Your task to perform on an android device: toggle airplane mode Image 0: 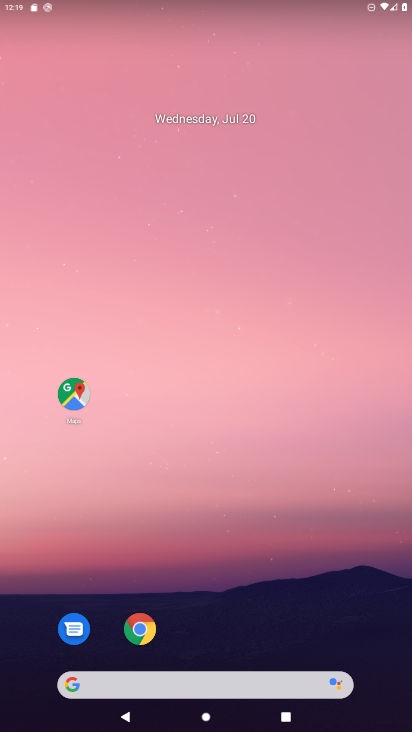
Step 0: drag from (187, 436) to (222, 21)
Your task to perform on an android device: toggle airplane mode Image 1: 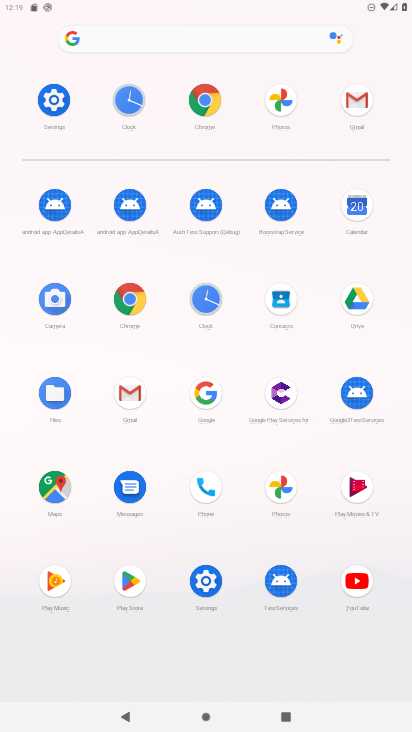
Step 1: click (47, 86)
Your task to perform on an android device: toggle airplane mode Image 2: 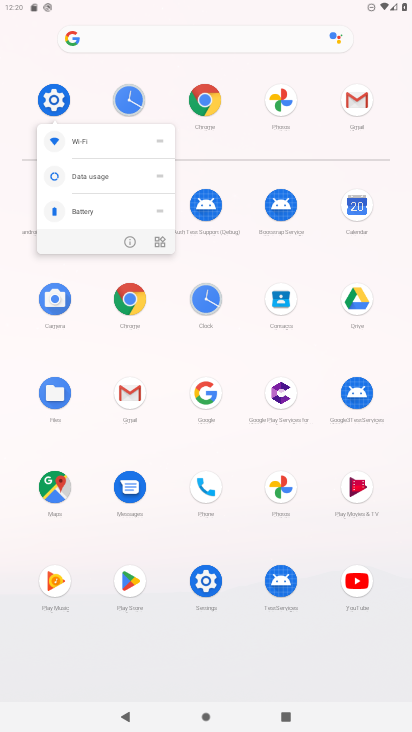
Step 2: click (127, 227)
Your task to perform on an android device: toggle airplane mode Image 3: 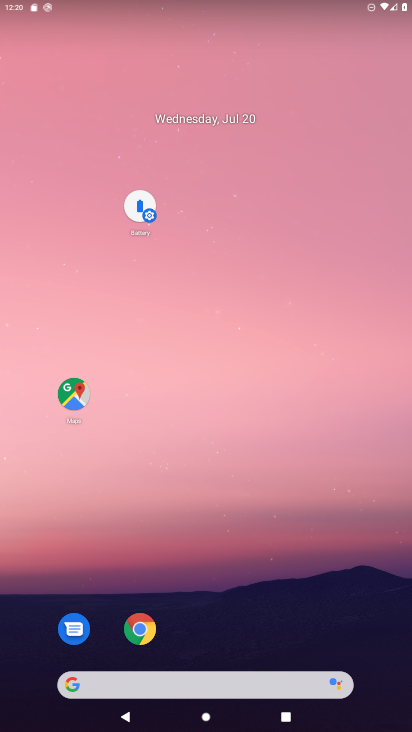
Step 3: drag from (193, 626) to (284, 110)
Your task to perform on an android device: toggle airplane mode Image 4: 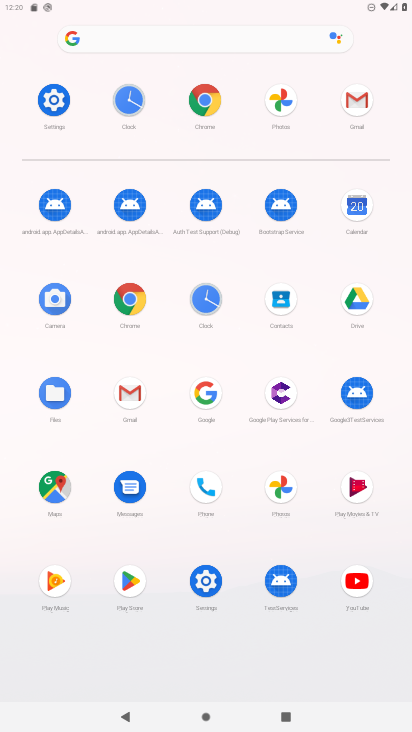
Step 4: click (49, 98)
Your task to perform on an android device: toggle airplane mode Image 5: 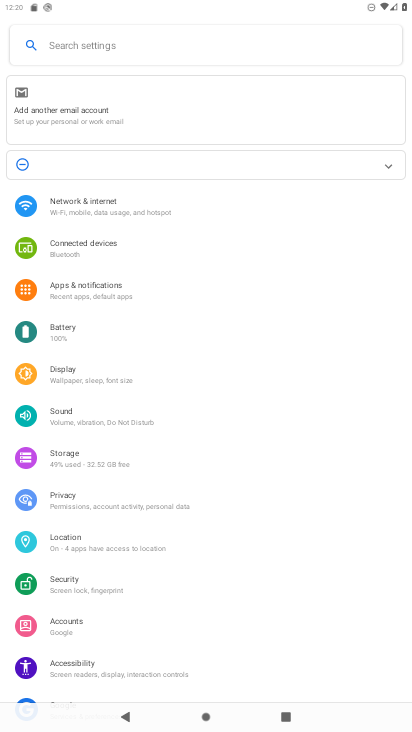
Step 5: click (101, 205)
Your task to perform on an android device: toggle airplane mode Image 6: 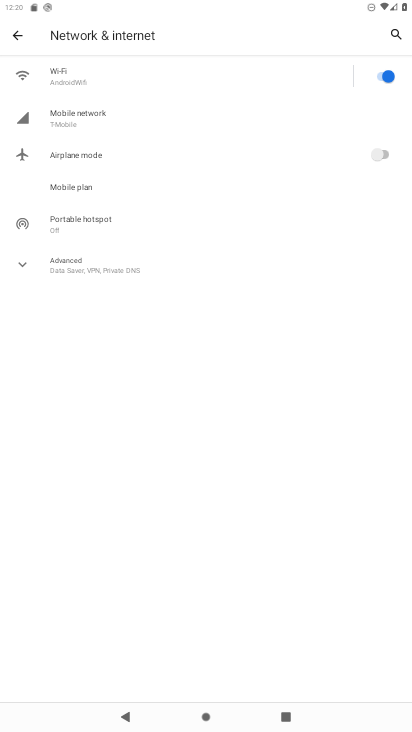
Step 6: click (109, 158)
Your task to perform on an android device: toggle airplane mode Image 7: 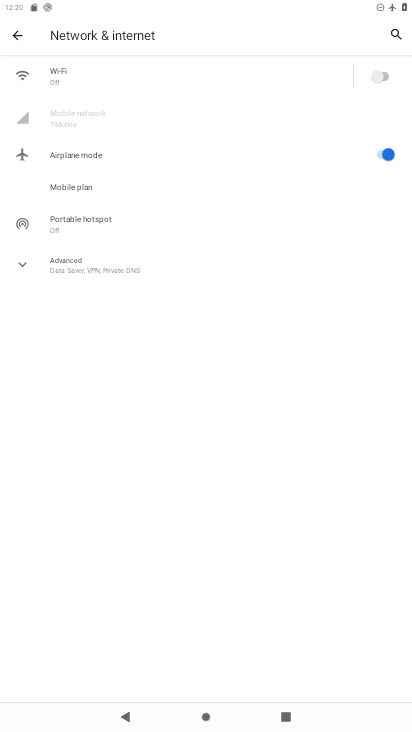
Step 7: task complete